Your task to perform on an android device: open app "WhatsApp Messenger" (install if not already installed) and go to login screen Image 0: 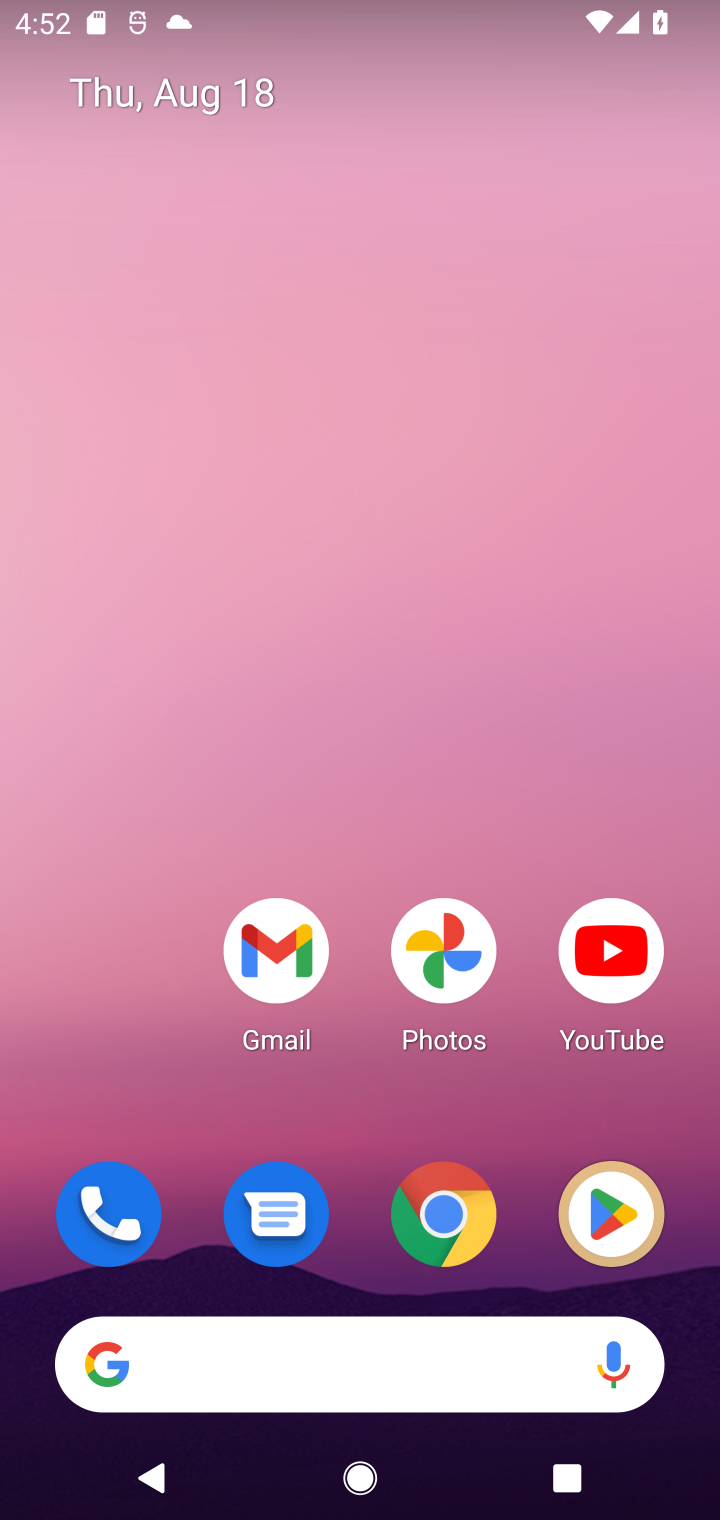
Step 0: drag from (350, 1077) to (380, 154)
Your task to perform on an android device: open app "WhatsApp Messenger" (install if not already installed) and go to login screen Image 1: 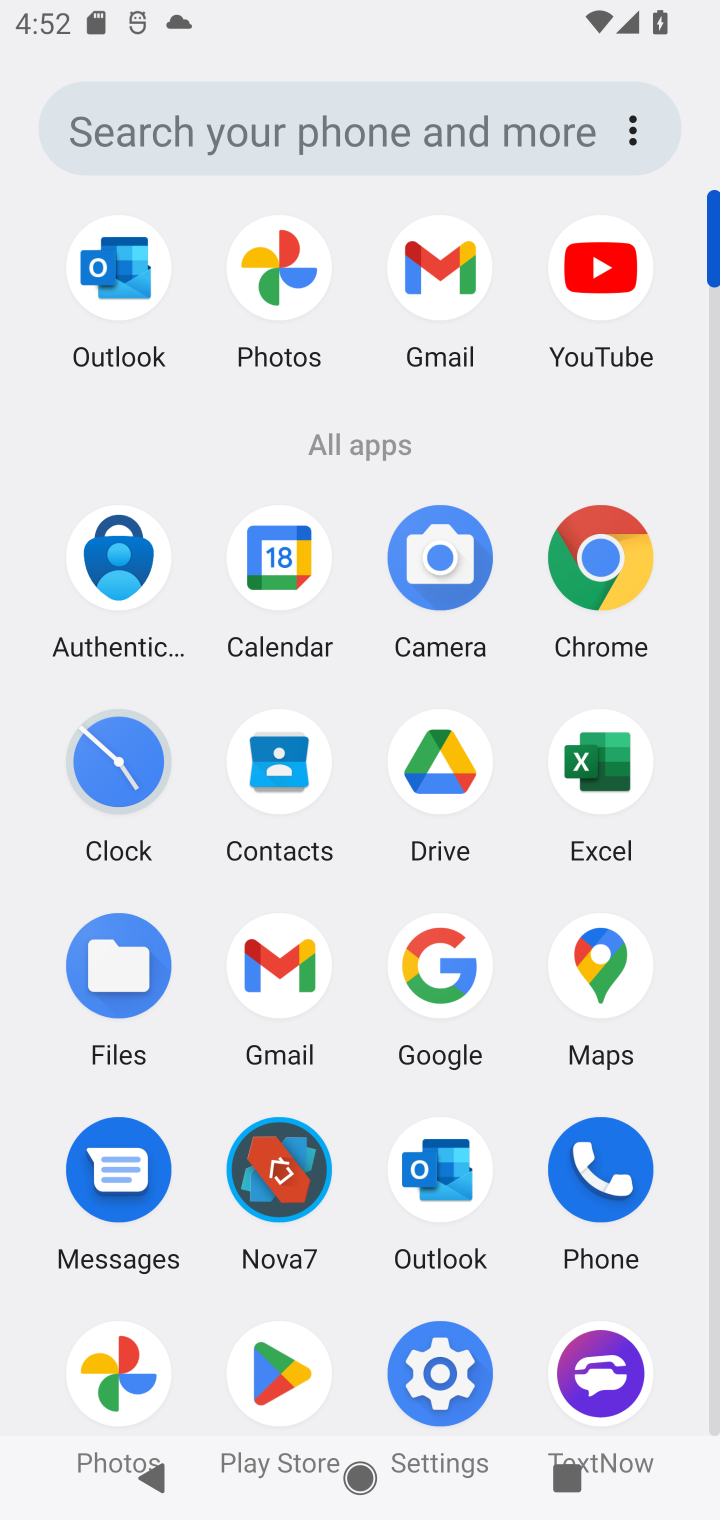
Step 1: click (261, 1363)
Your task to perform on an android device: open app "WhatsApp Messenger" (install if not already installed) and go to login screen Image 2: 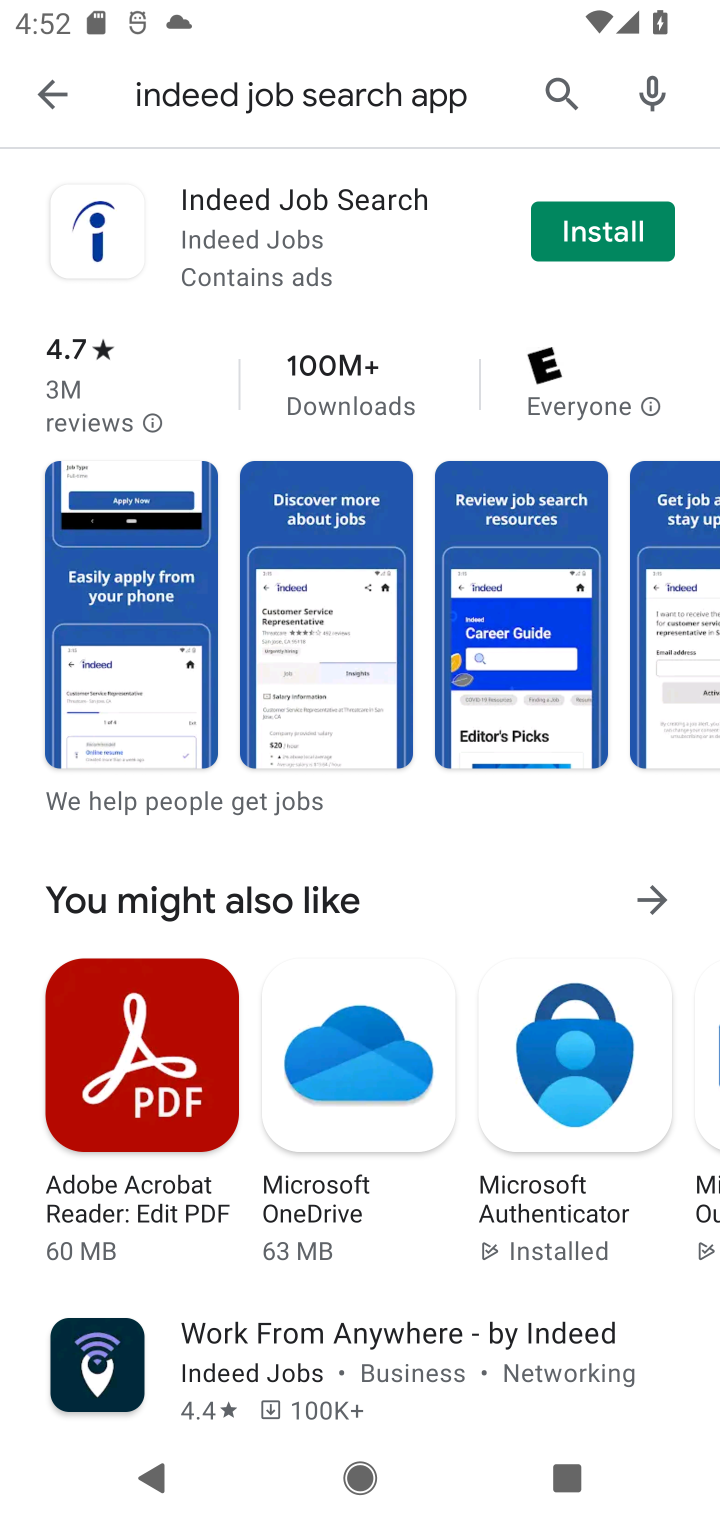
Step 2: click (317, 88)
Your task to perform on an android device: open app "WhatsApp Messenger" (install if not already installed) and go to login screen Image 3: 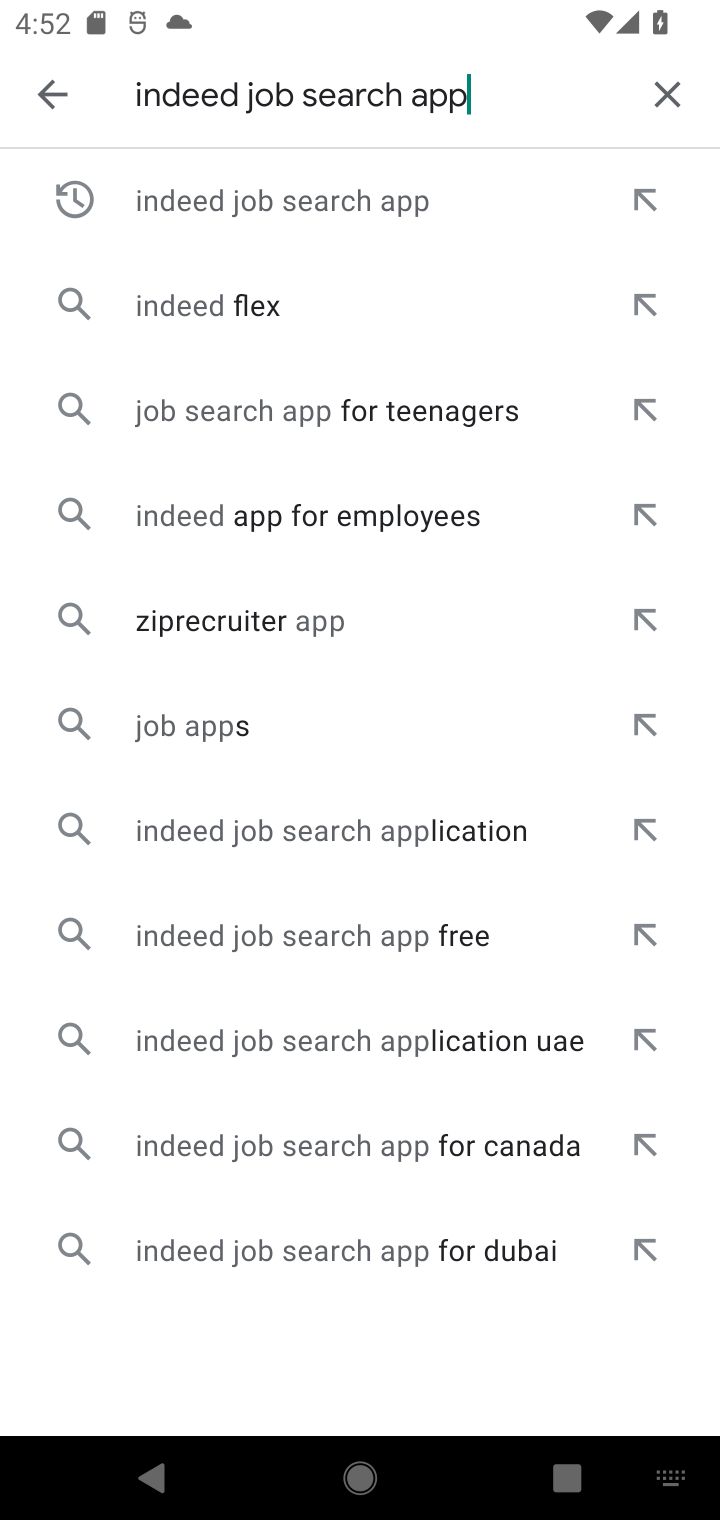
Step 3: click (653, 83)
Your task to perform on an android device: open app "WhatsApp Messenger" (install if not already installed) and go to login screen Image 4: 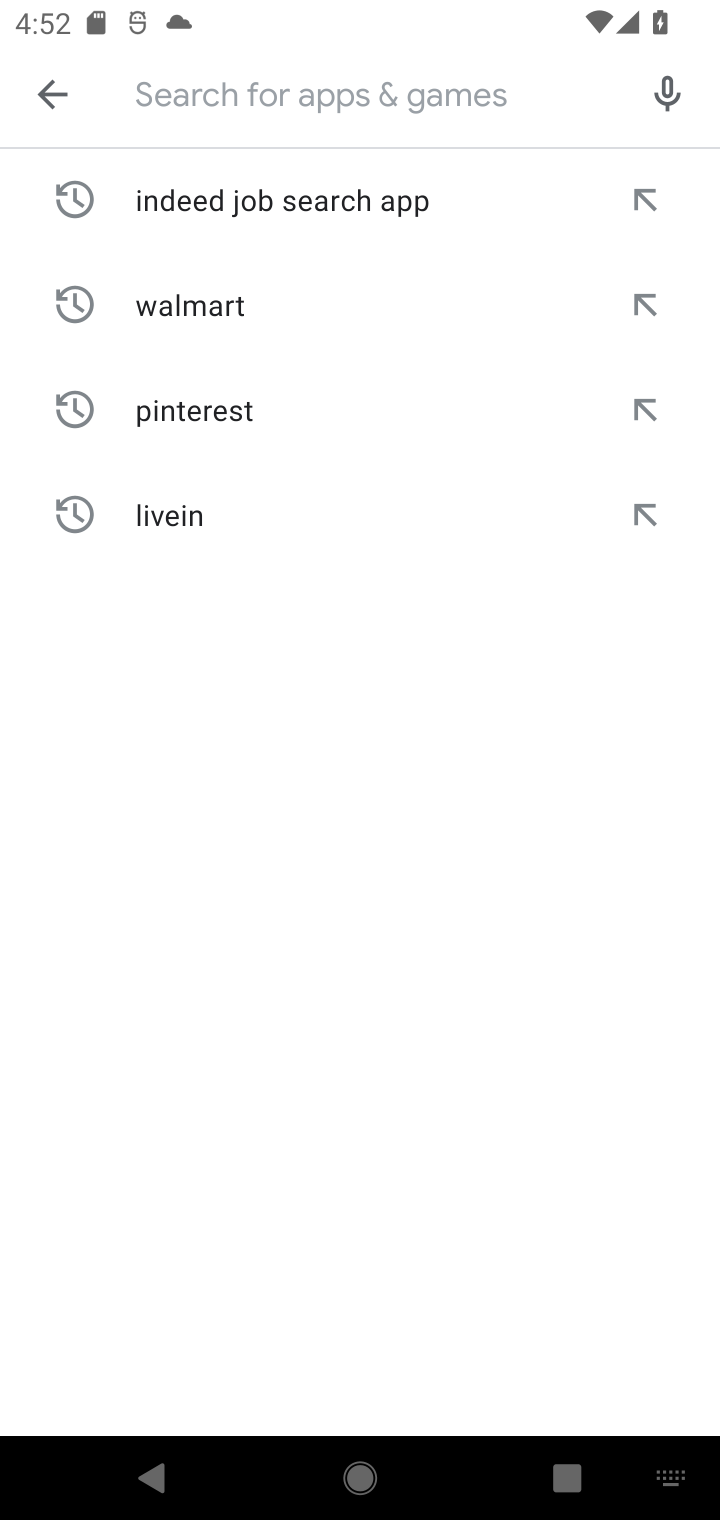
Step 4: type "whatsapp messenger"
Your task to perform on an android device: open app "WhatsApp Messenger" (install if not already installed) and go to login screen Image 5: 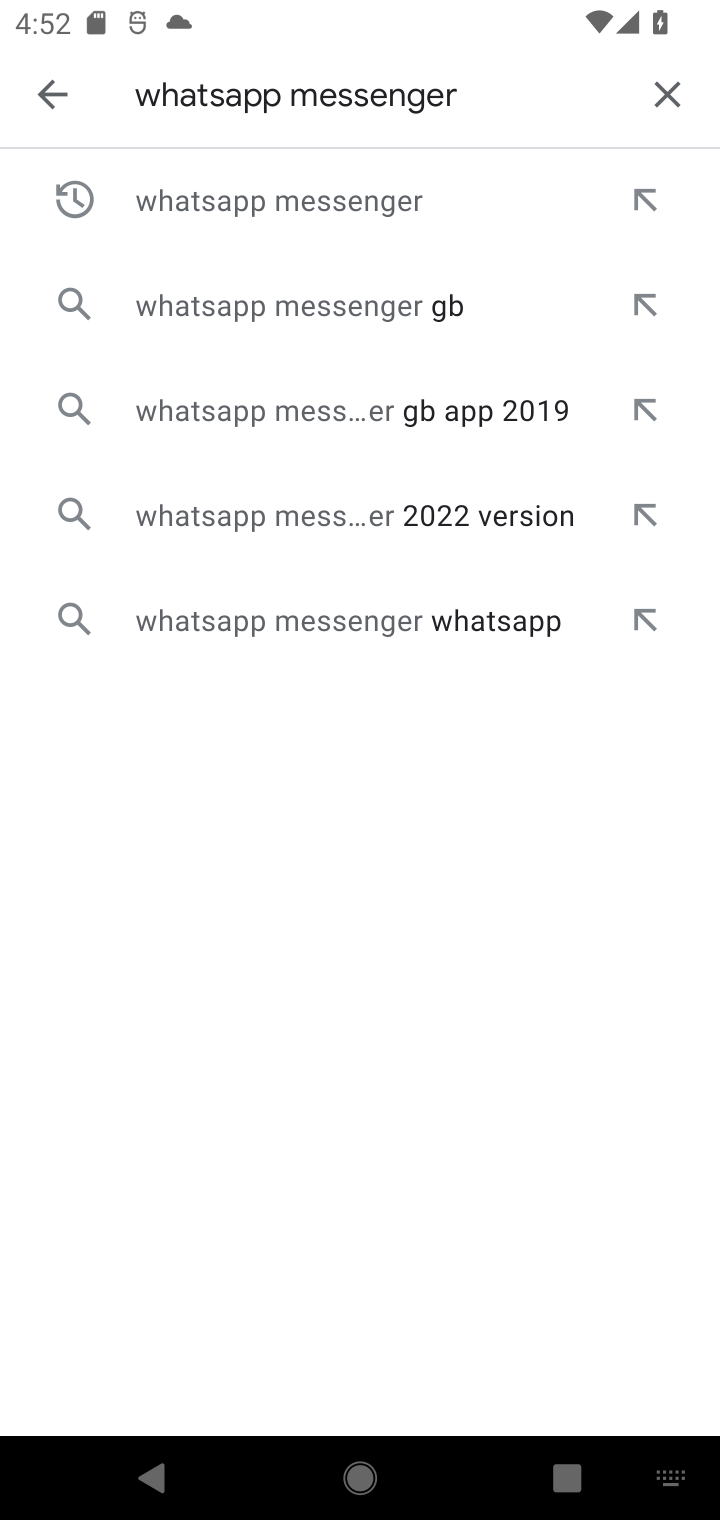
Step 5: click (305, 197)
Your task to perform on an android device: open app "WhatsApp Messenger" (install if not already installed) and go to login screen Image 6: 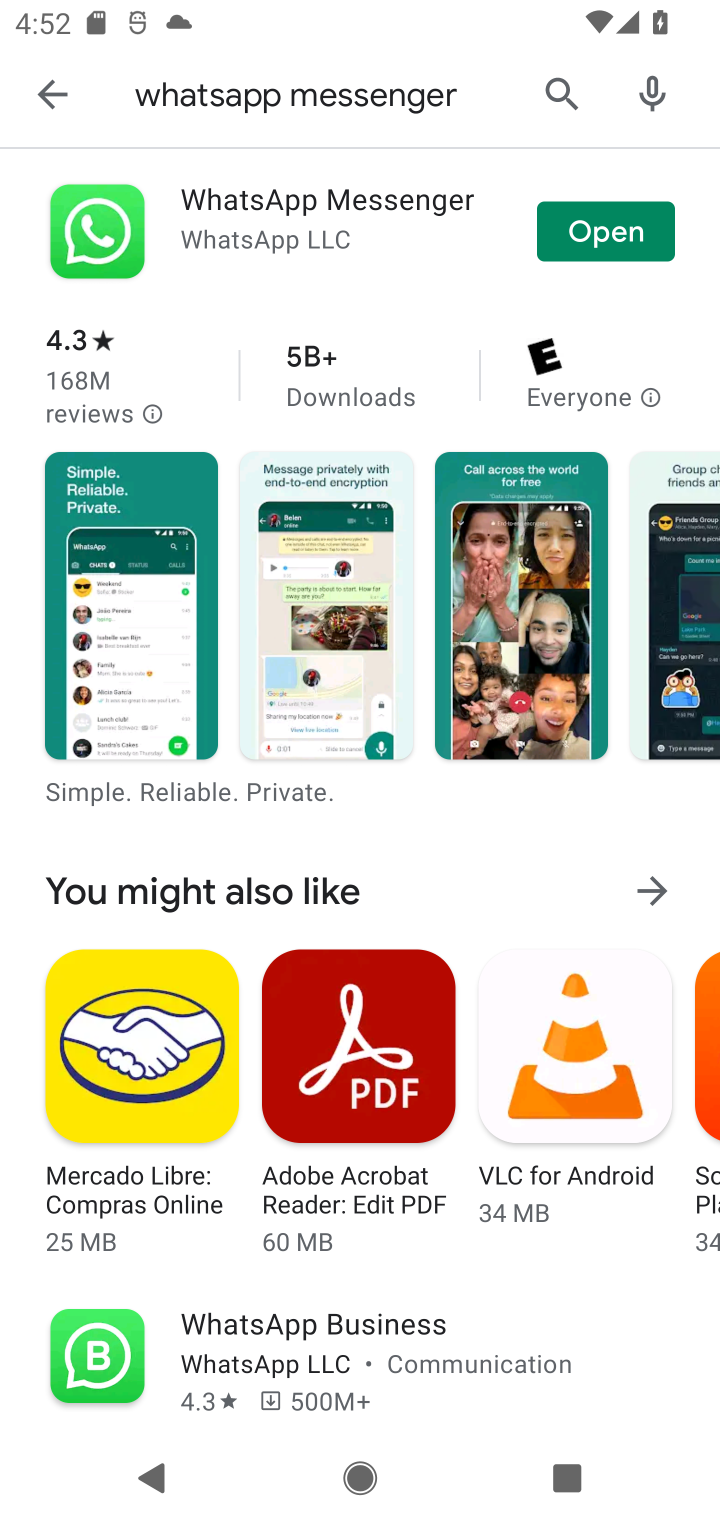
Step 6: click (621, 222)
Your task to perform on an android device: open app "WhatsApp Messenger" (install if not already installed) and go to login screen Image 7: 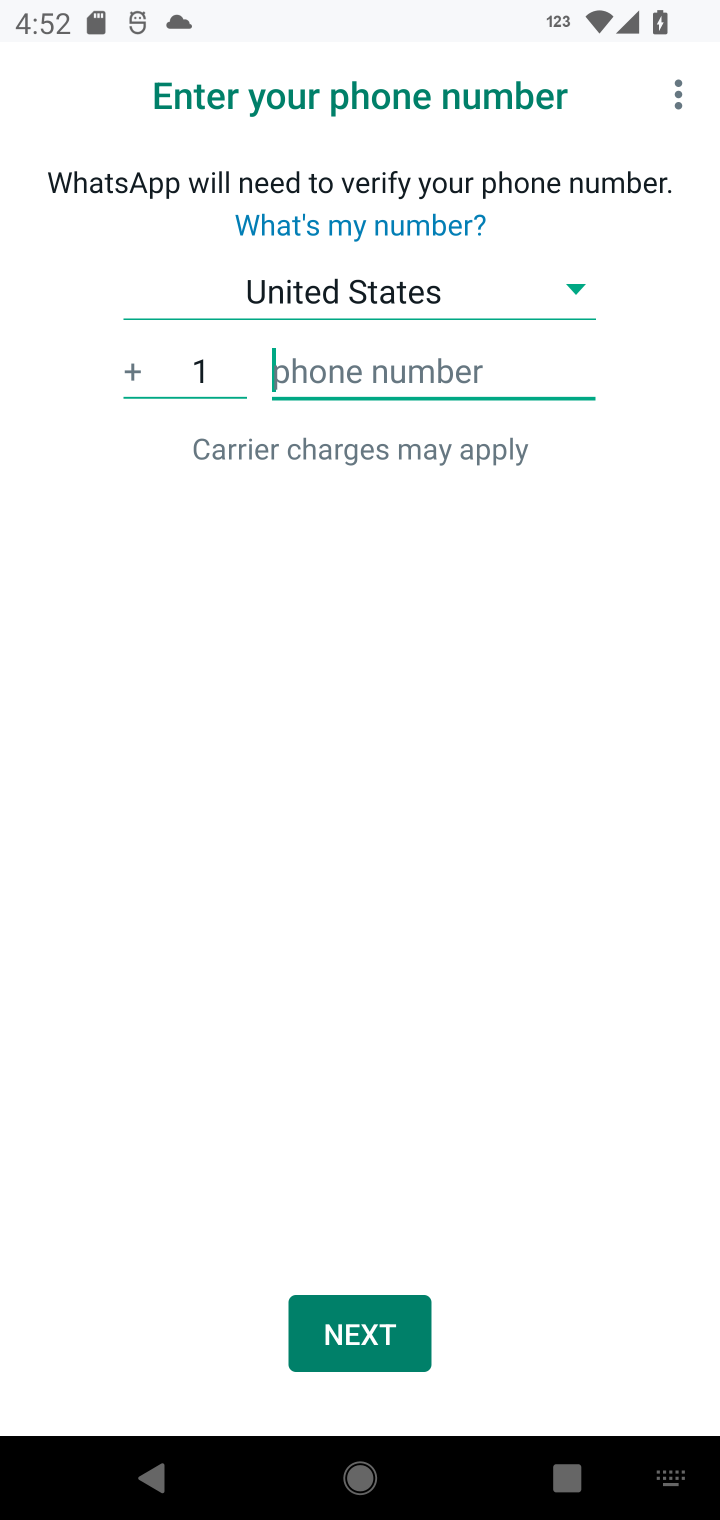
Step 7: task complete